Your task to perform on an android device: Searchfor good French restaurants Image 0: 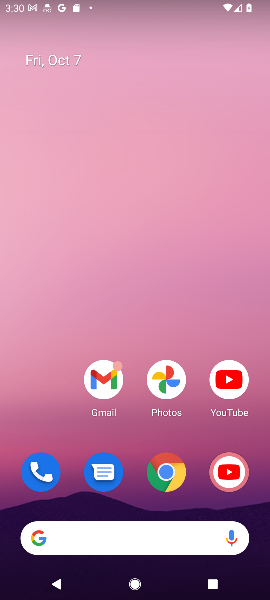
Step 0: drag from (147, 545) to (165, 272)
Your task to perform on an android device: Searchfor good French restaurants Image 1: 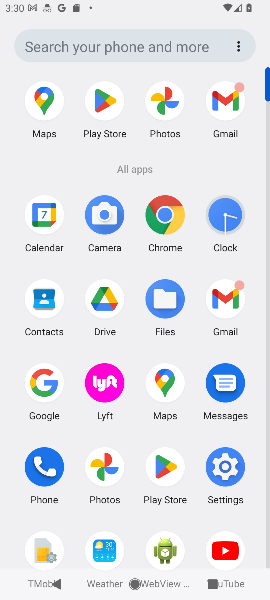
Step 1: click (44, 99)
Your task to perform on an android device: Searchfor good French restaurants Image 2: 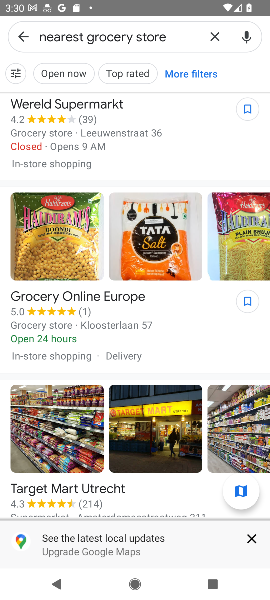
Step 2: click (213, 37)
Your task to perform on an android device: Searchfor good French restaurants Image 3: 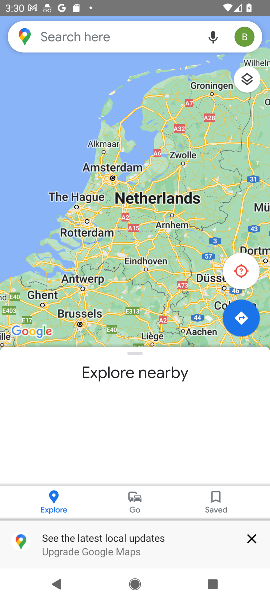
Step 3: type "good French restaurants"
Your task to perform on an android device: Searchfor good French restaurants Image 4: 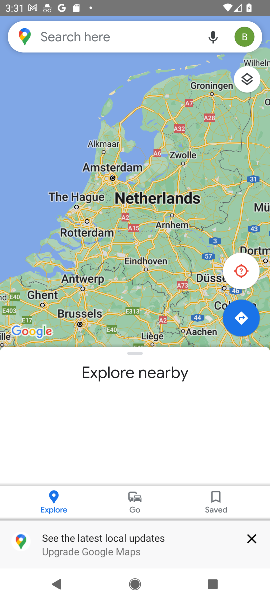
Step 4: click (69, 45)
Your task to perform on an android device: Searchfor good French restaurants Image 5: 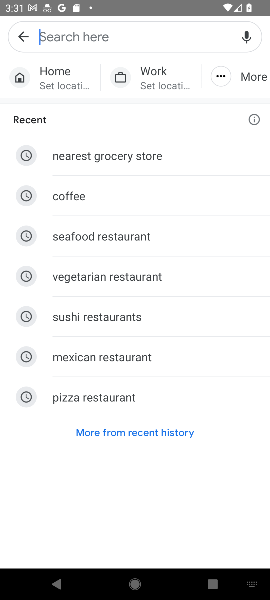
Step 5: type "Good french restaurants"
Your task to perform on an android device: Searchfor good French restaurants Image 6: 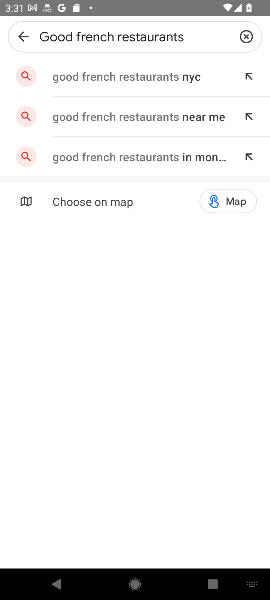
Step 6: click (131, 113)
Your task to perform on an android device: Searchfor good French restaurants Image 7: 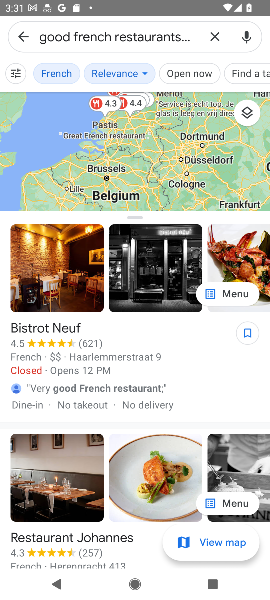
Step 7: task complete